Your task to perform on an android device: uninstall "The Home Depot" Image 0: 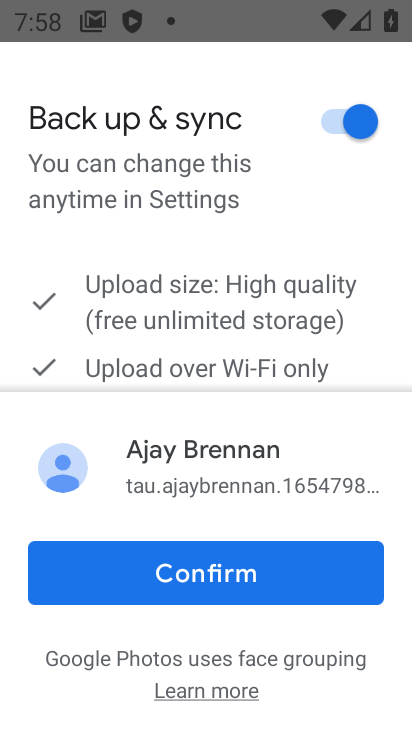
Step 0: press home button
Your task to perform on an android device: uninstall "The Home Depot" Image 1: 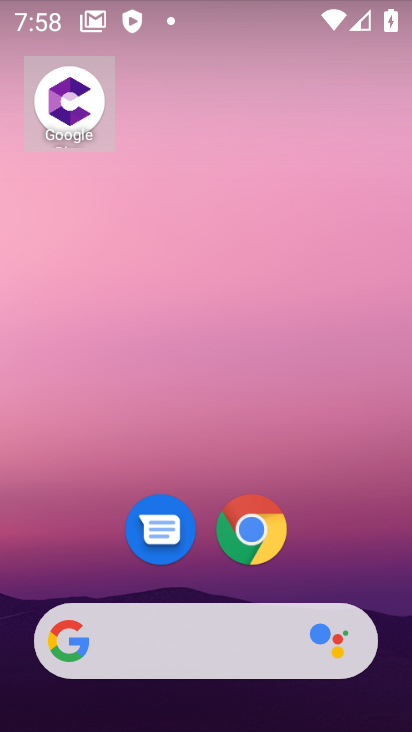
Step 1: drag from (339, 513) to (256, 13)
Your task to perform on an android device: uninstall "The Home Depot" Image 2: 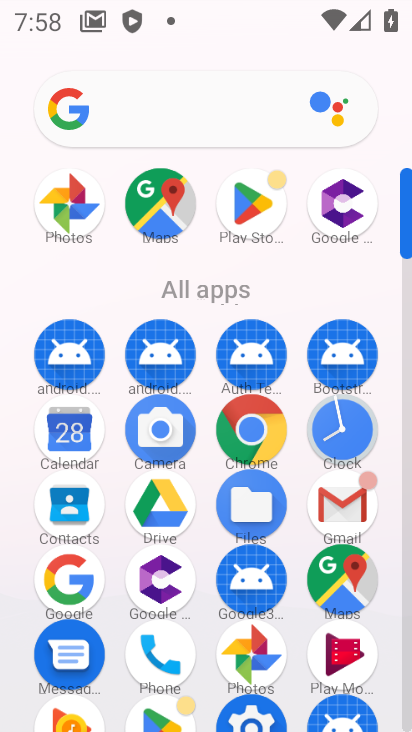
Step 2: click (262, 203)
Your task to perform on an android device: uninstall "The Home Depot" Image 3: 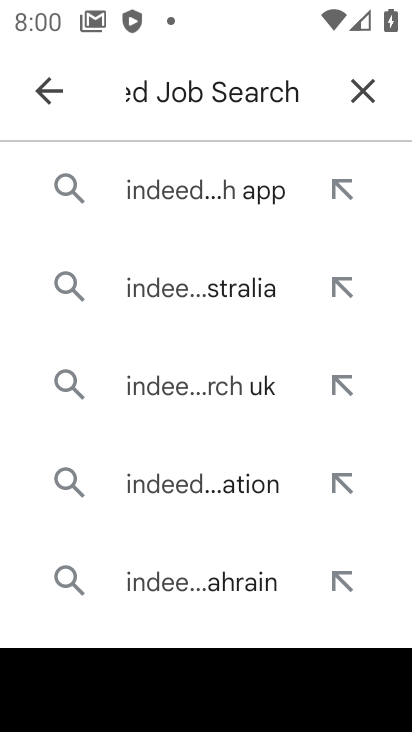
Step 3: click (350, 96)
Your task to perform on an android device: uninstall "The Home Depot" Image 4: 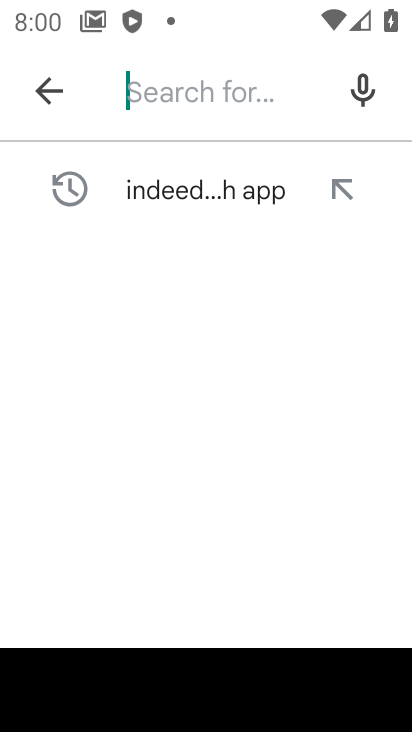
Step 4: type "The Home Depot"
Your task to perform on an android device: uninstall "The Home Depot" Image 5: 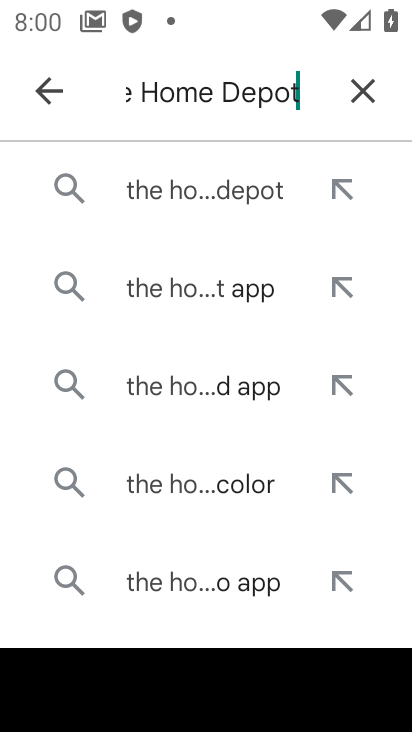
Step 5: click (171, 196)
Your task to perform on an android device: uninstall "The Home Depot" Image 6: 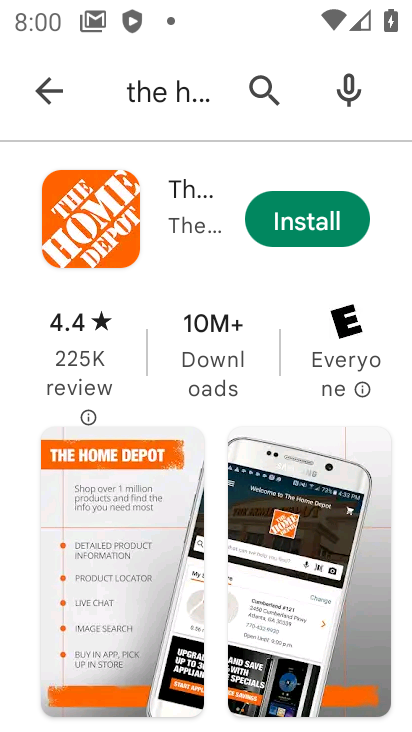
Step 6: task complete